Your task to perform on an android device: Open the calendar and show me this week's events? Image 0: 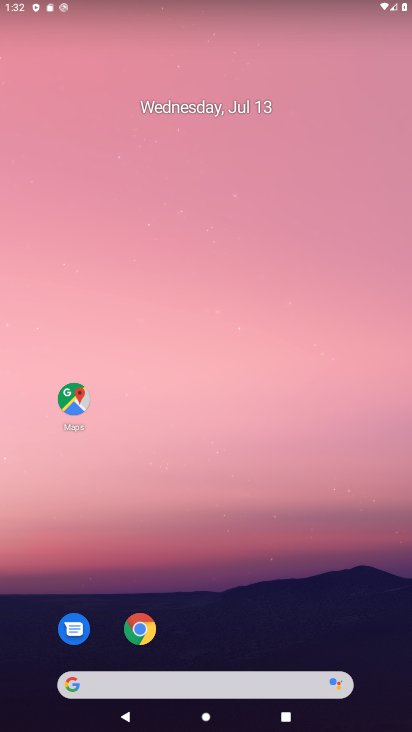
Step 0: drag from (323, 622) to (334, 0)
Your task to perform on an android device: Open the calendar and show me this week's events? Image 1: 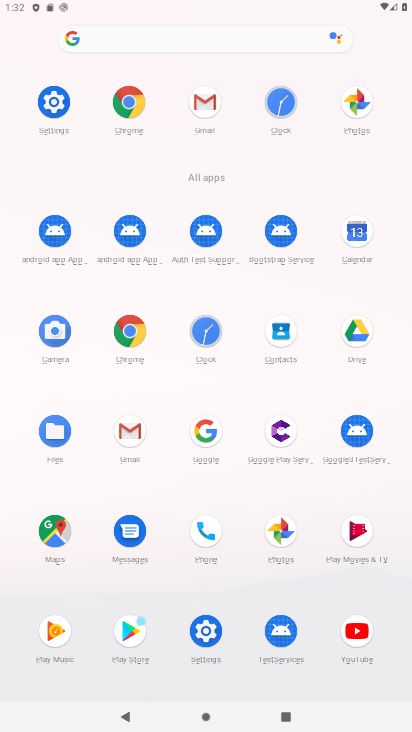
Step 1: click (367, 255)
Your task to perform on an android device: Open the calendar and show me this week's events? Image 2: 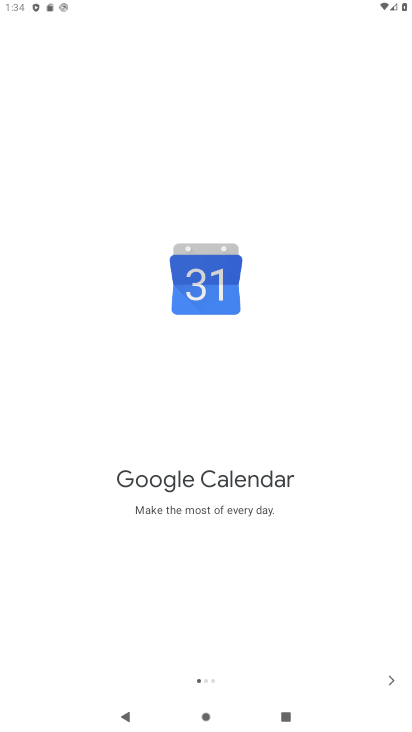
Step 2: click (391, 676)
Your task to perform on an android device: Open the calendar and show me this week's events? Image 3: 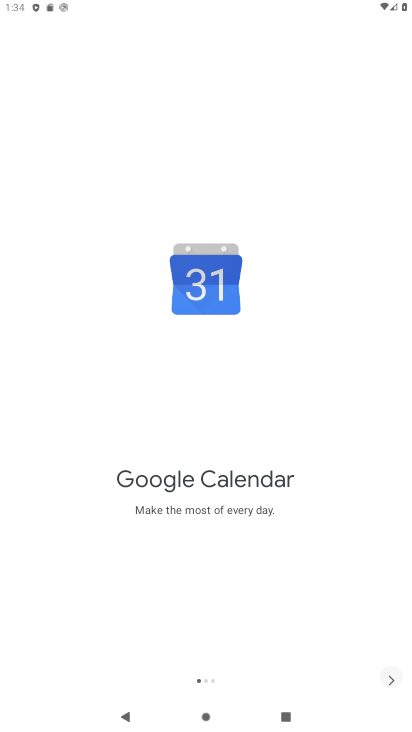
Step 3: click (391, 676)
Your task to perform on an android device: Open the calendar and show me this week's events? Image 4: 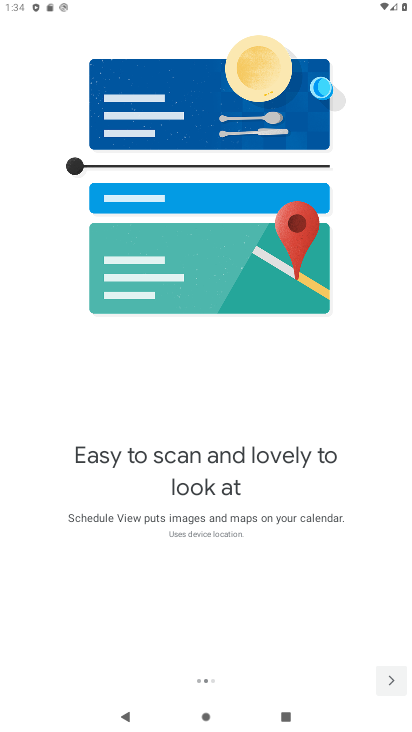
Step 4: click (391, 676)
Your task to perform on an android device: Open the calendar and show me this week's events? Image 5: 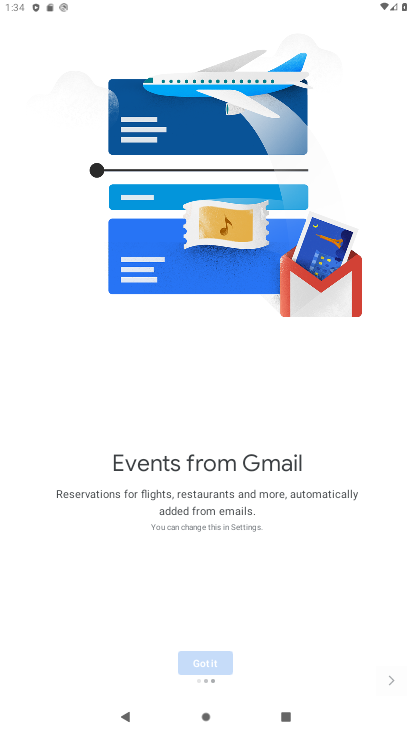
Step 5: click (391, 676)
Your task to perform on an android device: Open the calendar and show me this week's events? Image 6: 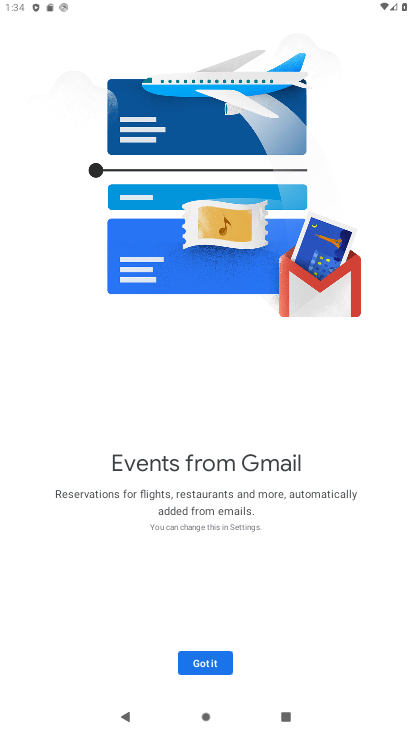
Step 6: click (194, 674)
Your task to perform on an android device: Open the calendar and show me this week's events? Image 7: 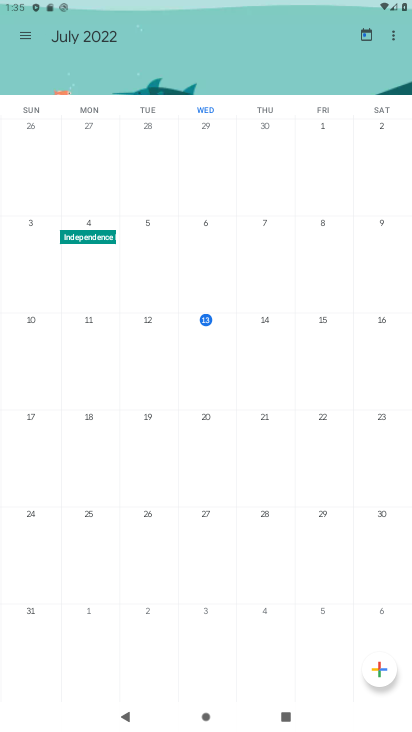
Step 7: task complete